Your task to perform on an android device: turn off airplane mode Image 0: 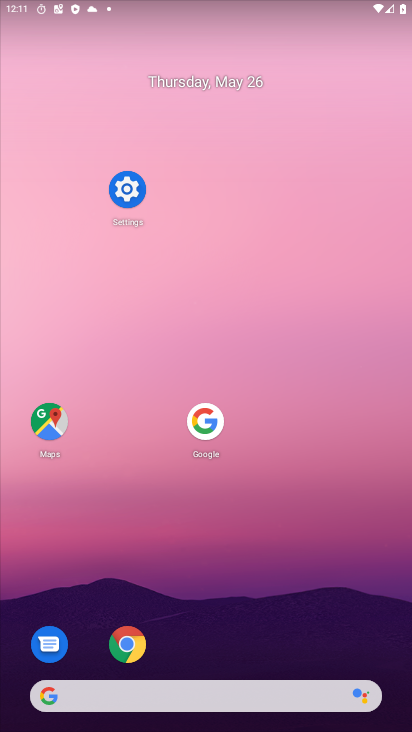
Step 0: drag from (256, 595) to (277, 129)
Your task to perform on an android device: turn off airplane mode Image 1: 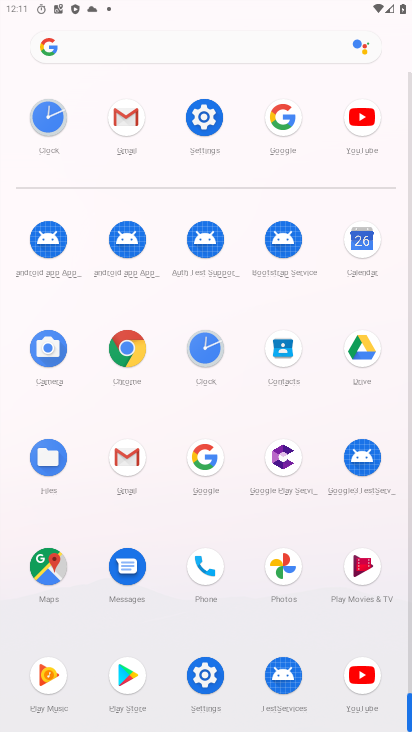
Step 1: click (199, 119)
Your task to perform on an android device: turn off airplane mode Image 2: 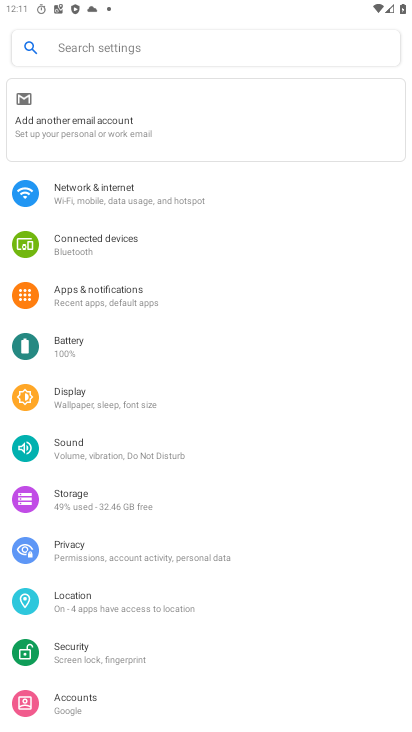
Step 2: click (86, 207)
Your task to perform on an android device: turn off airplane mode Image 3: 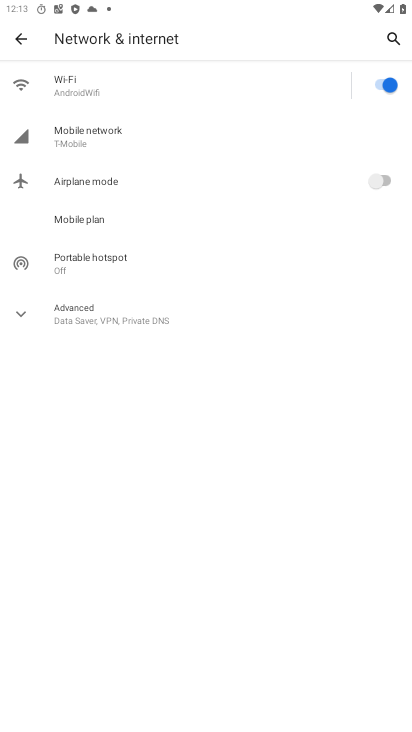
Step 3: task complete